Your task to perform on an android device: Open calendar and show me the second week of next month Image 0: 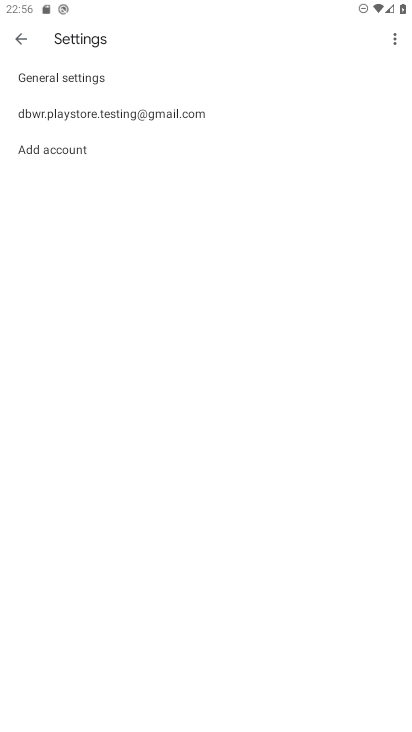
Step 0: press home button
Your task to perform on an android device: Open calendar and show me the second week of next month Image 1: 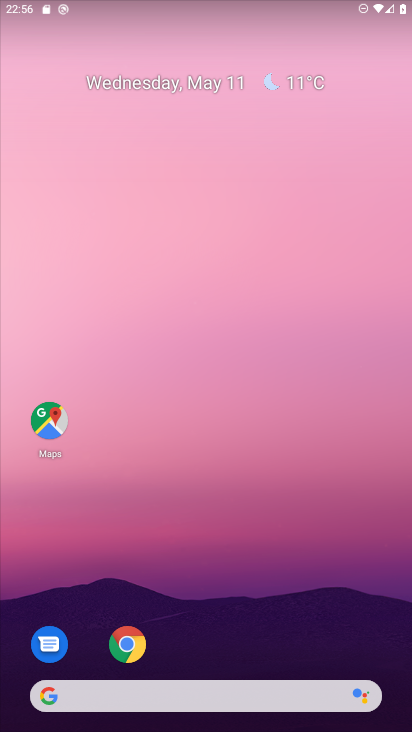
Step 1: drag from (309, 654) to (196, 35)
Your task to perform on an android device: Open calendar and show me the second week of next month Image 2: 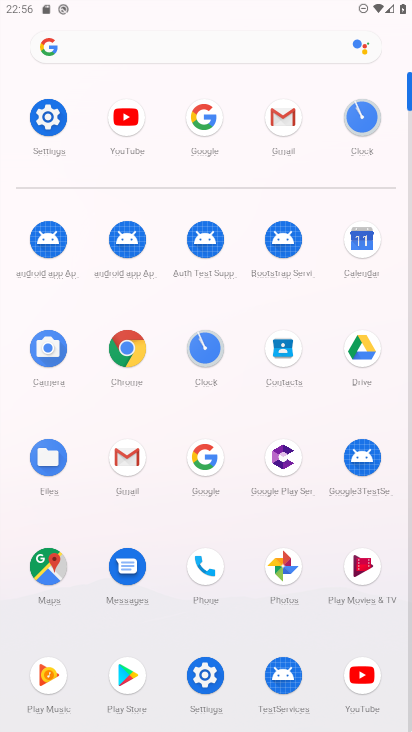
Step 2: click (362, 244)
Your task to perform on an android device: Open calendar and show me the second week of next month Image 3: 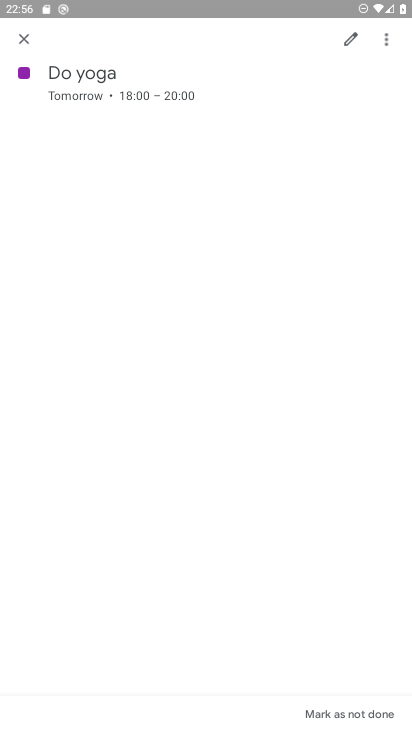
Step 3: click (27, 46)
Your task to perform on an android device: Open calendar and show me the second week of next month Image 4: 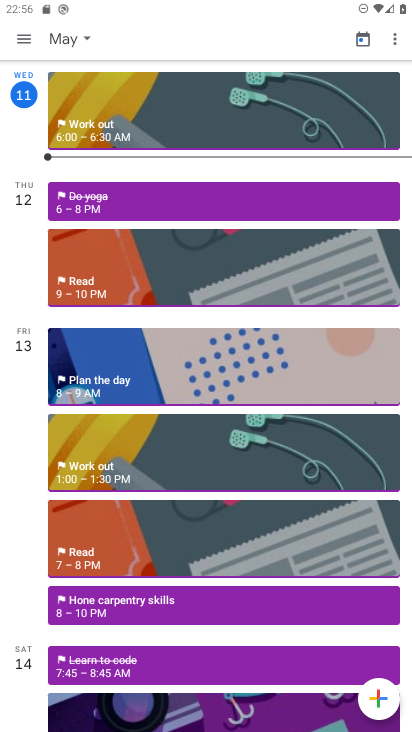
Step 4: click (86, 39)
Your task to perform on an android device: Open calendar and show me the second week of next month Image 5: 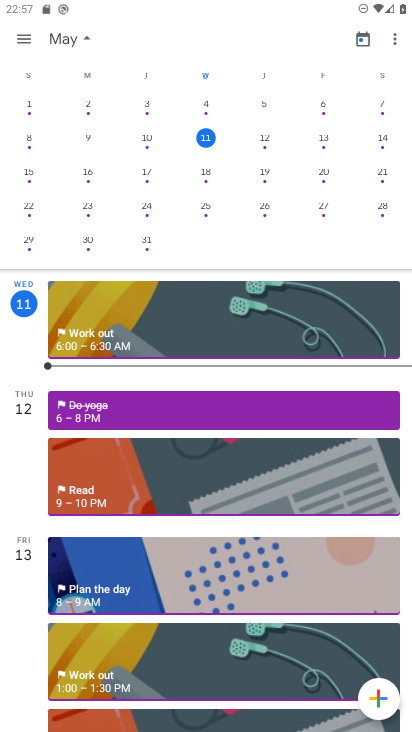
Step 5: drag from (298, 178) to (0, 250)
Your task to perform on an android device: Open calendar and show me the second week of next month Image 6: 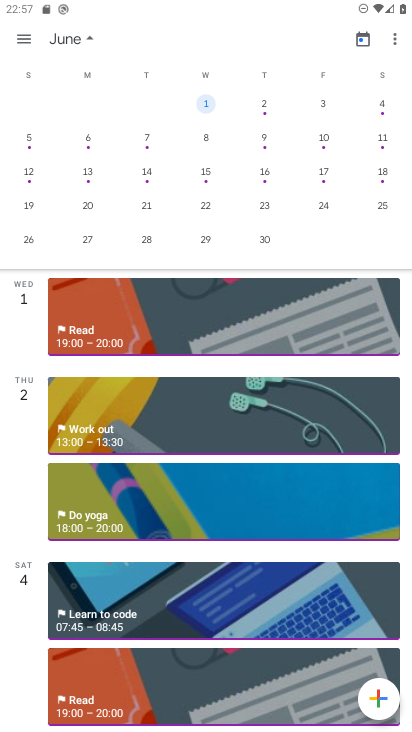
Step 6: click (24, 37)
Your task to perform on an android device: Open calendar and show me the second week of next month Image 7: 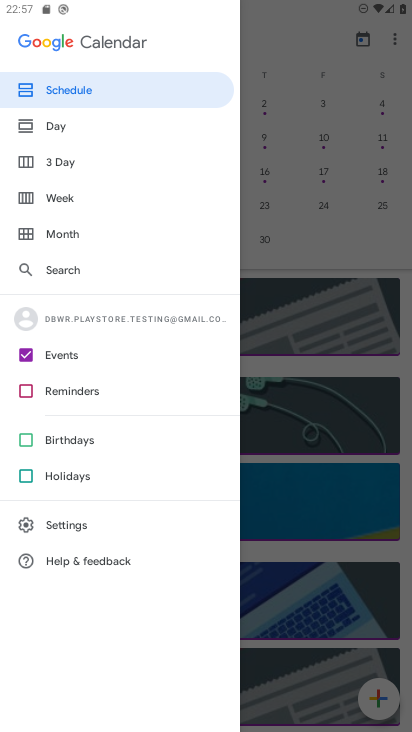
Step 7: click (28, 196)
Your task to perform on an android device: Open calendar and show me the second week of next month Image 8: 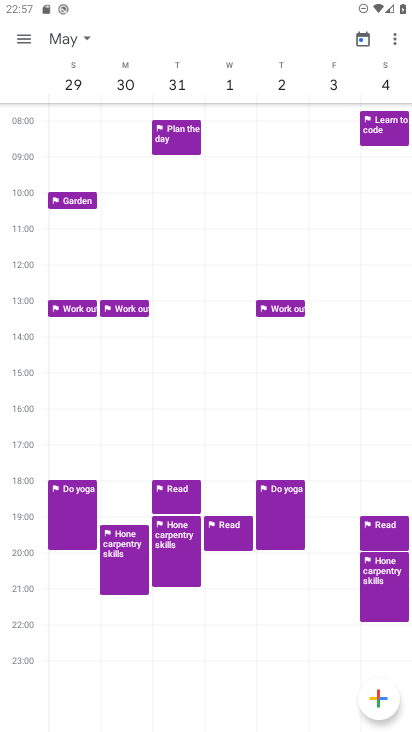
Step 8: task complete